Your task to perform on an android device: Do I have any events tomorrow? Image 0: 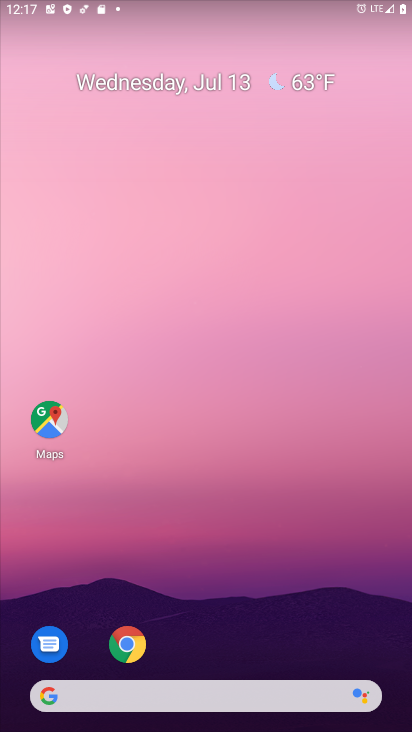
Step 0: drag from (232, 693) to (292, 161)
Your task to perform on an android device: Do I have any events tomorrow? Image 1: 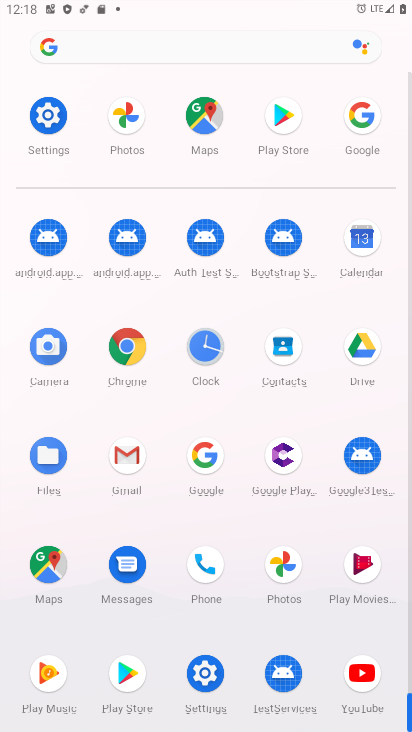
Step 1: click (365, 242)
Your task to perform on an android device: Do I have any events tomorrow? Image 2: 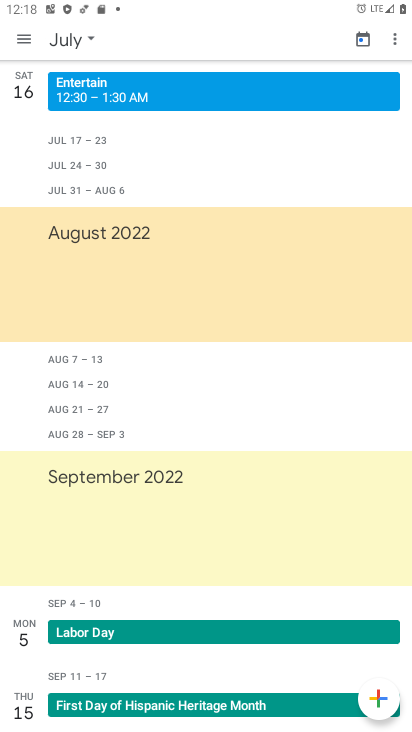
Step 2: click (363, 41)
Your task to perform on an android device: Do I have any events tomorrow? Image 3: 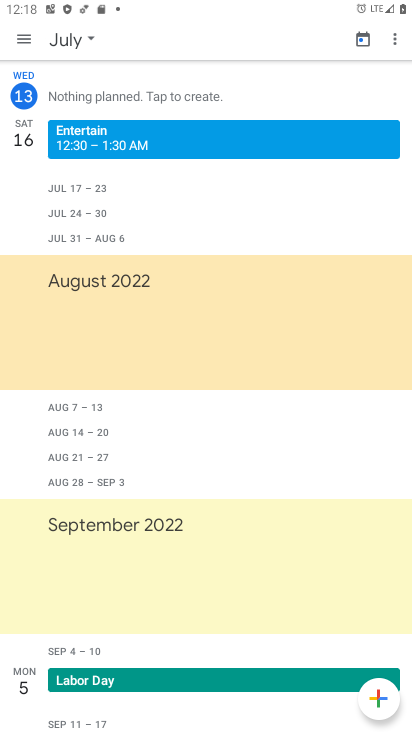
Step 3: click (90, 33)
Your task to perform on an android device: Do I have any events tomorrow? Image 4: 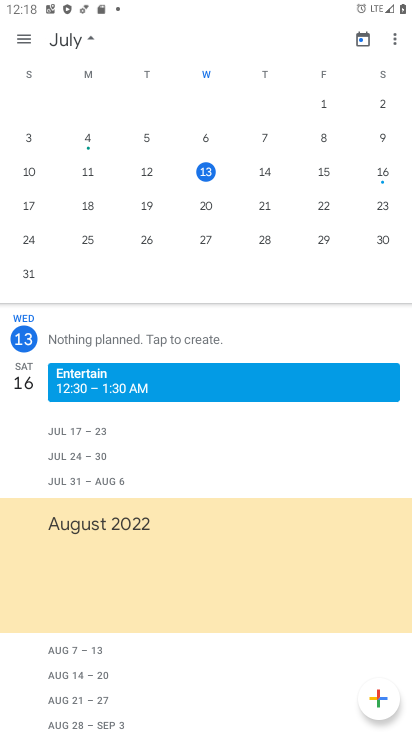
Step 4: click (265, 168)
Your task to perform on an android device: Do I have any events tomorrow? Image 5: 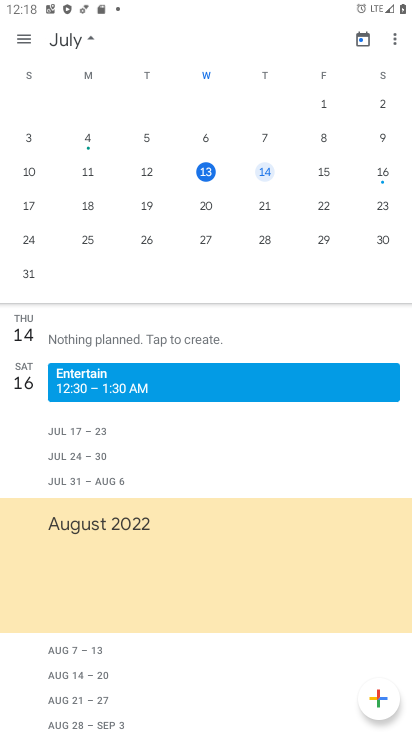
Step 5: click (29, 41)
Your task to perform on an android device: Do I have any events tomorrow? Image 6: 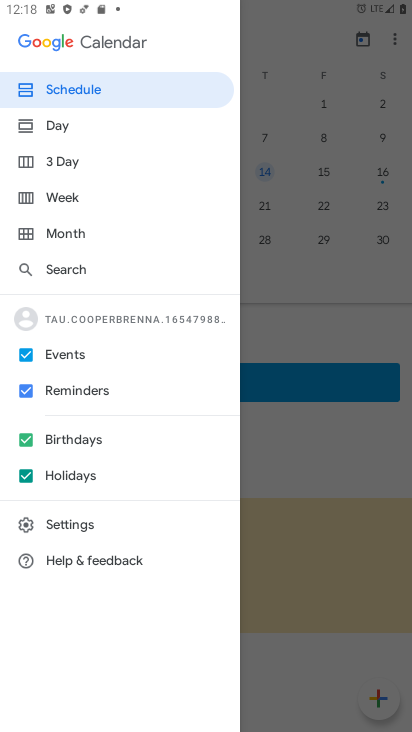
Step 6: click (61, 88)
Your task to perform on an android device: Do I have any events tomorrow? Image 7: 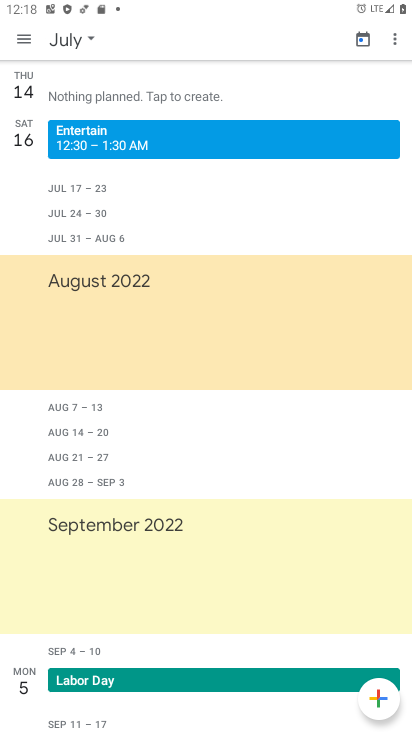
Step 7: task complete